Your task to perform on an android device: Go to Android settings Image 0: 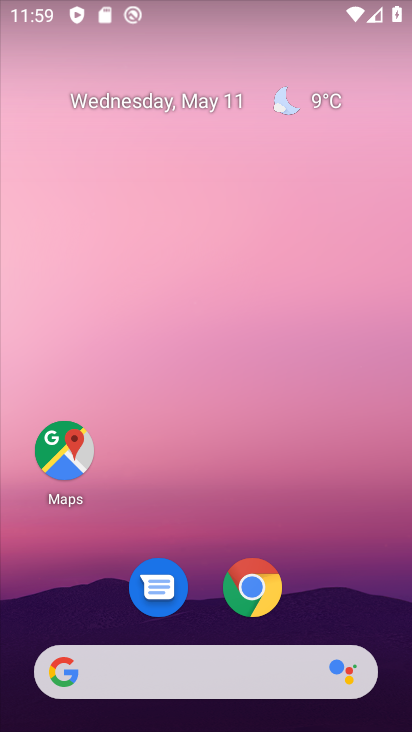
Step 0: drag from (325, 589) to (355, 265)
Your task to perform on an android device: Go to Android settings Image 1: 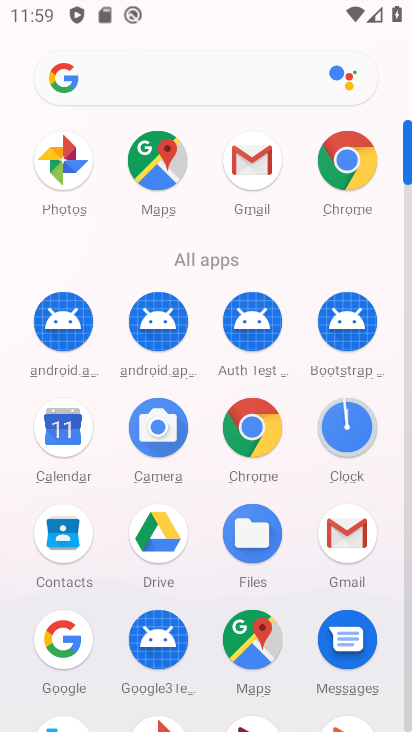
Step 1: drag from (221, 600) to (264, 237)
Your task to perform on an android device: Go to Android settings Image 2: 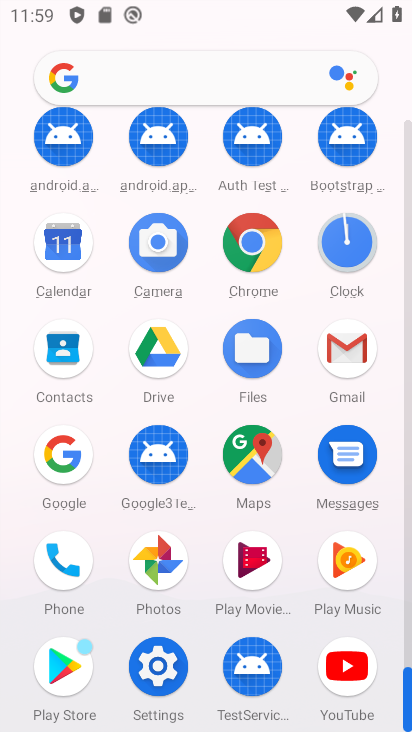
Step 2: click (149, 645)
Your task to perform on an android device: Go to Android settings Image 3: 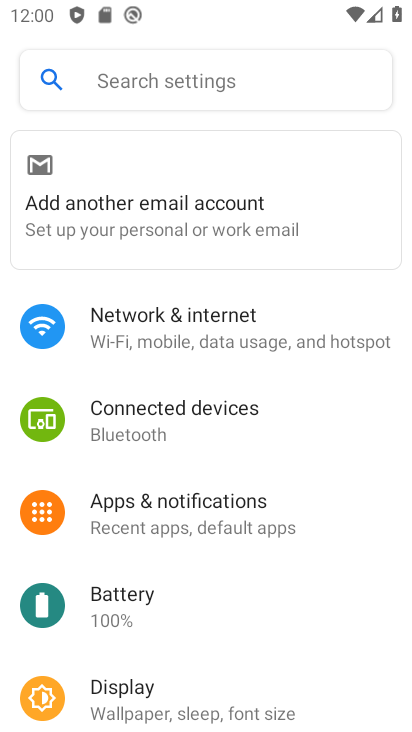
Step 3: task complete